Your task to perform on an android device: check the backup settings in the google photos Image 0: 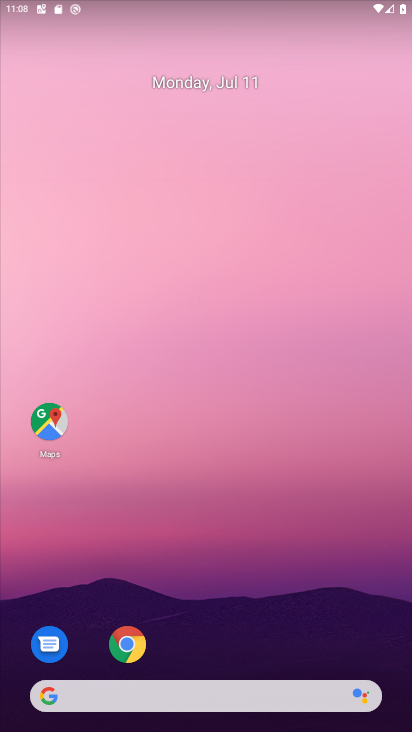
Step 0: drag from (308, 612) to (372, 29)
Your task to perform on an android device: check the backup settings in the google photos Image 1: 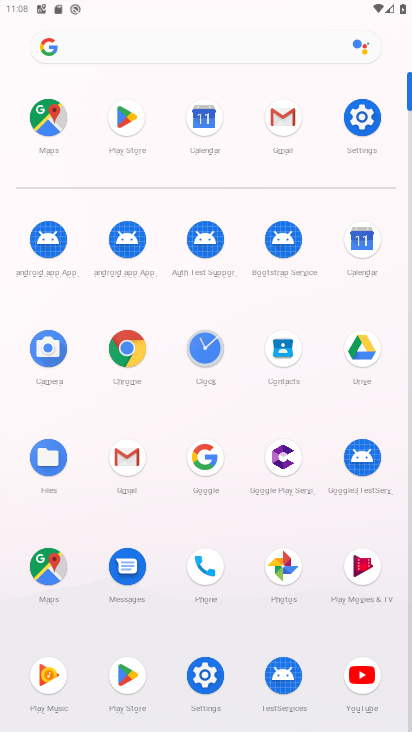
Step 1: click (275, 568)
Your task to perform on an android device: check the backup settings in the google photos Image 2: 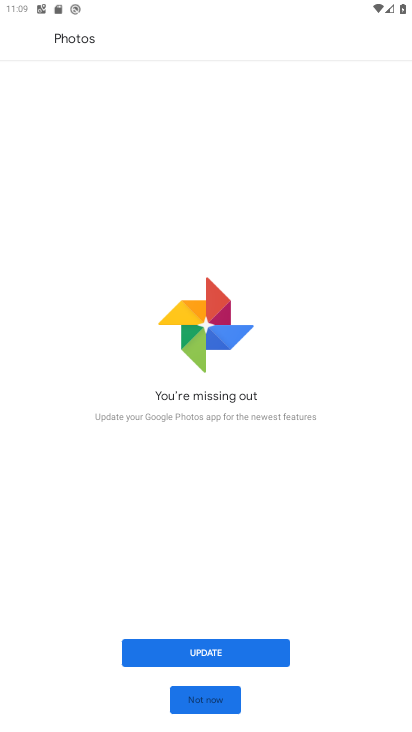
Step 2: click (190, 648)
Your task to perform on an android device: check the backup settings in the google photos Image 3: 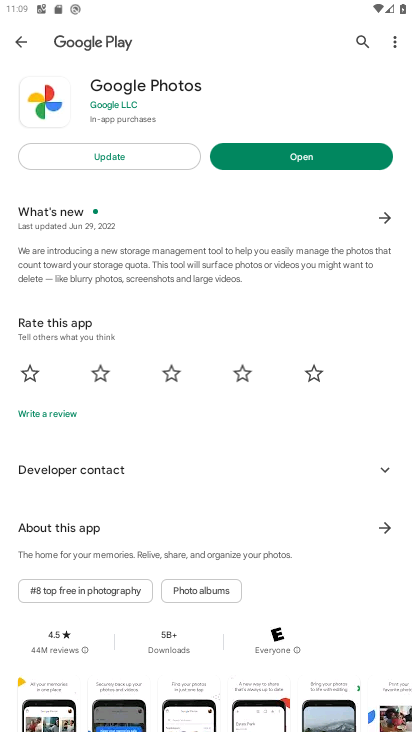
Step 3: click (127, 159)
Your task to perform on an android device: check the backup settings in the google photos Image 4: 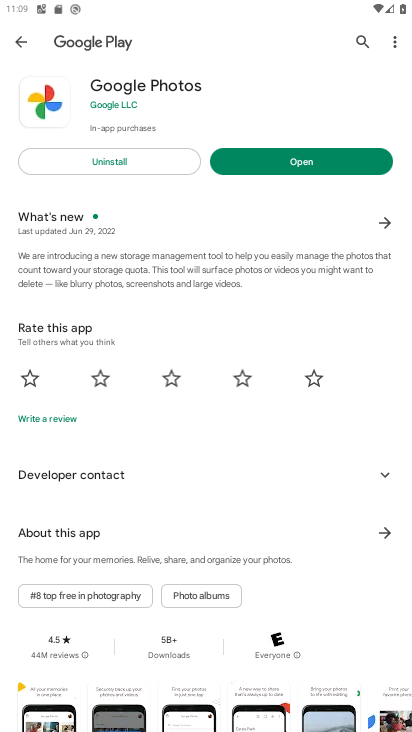
Step 4: click (306, 157)
Your task to perform on an android device: check the backup settings in the google photos Image 5: 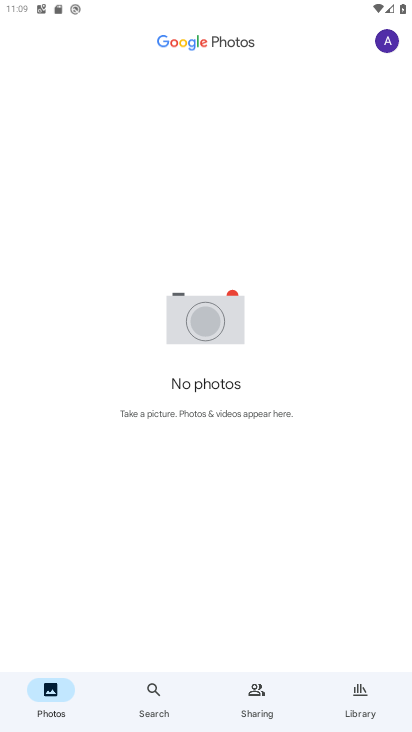
Step 5: click (384, 42)
Your task to perform on an android device: check the backup settings in the google photos Image 6: 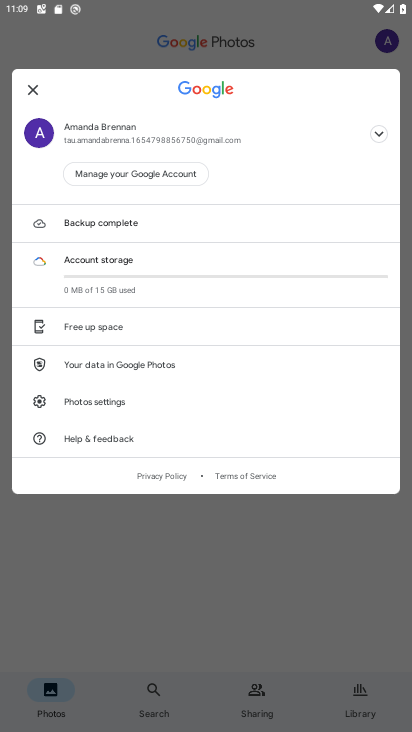
Step 6: click (104, 406)
Your task to perform on an android device: check the backup settings in the google photos Image 7: 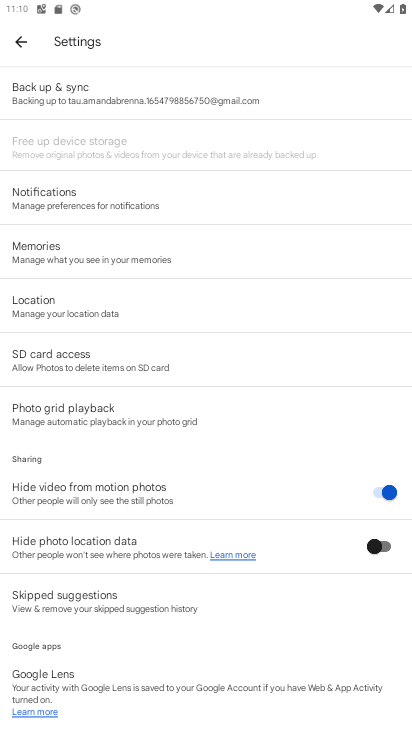
Step 7: click (90, 102)
Your task to perform on an android device: check the backup settings in the google photos Image 8: 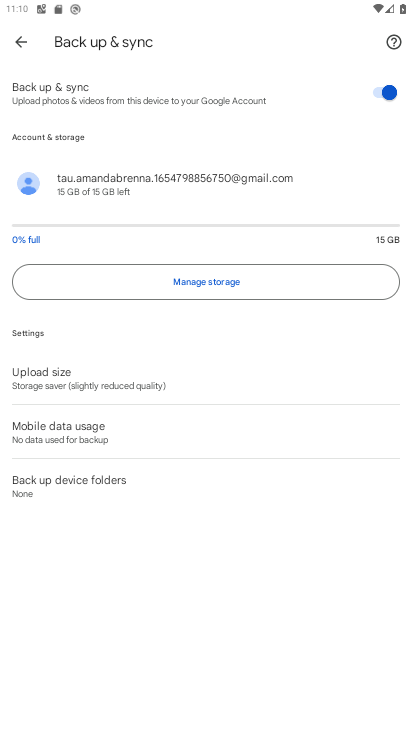
Step 8: task complete